Your task to perform on an android device: set default search engine in the chrome app Image 0: 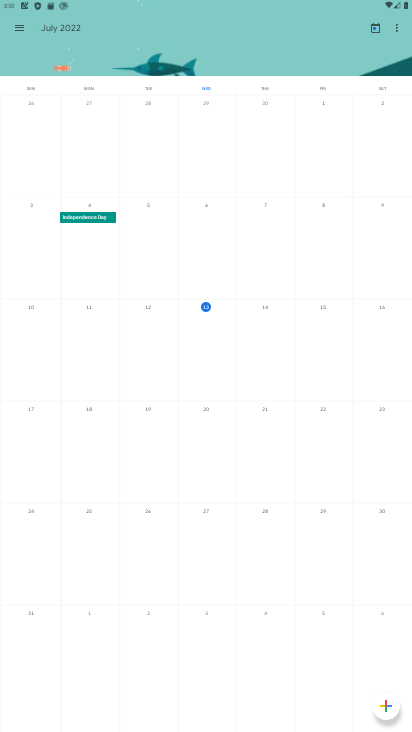
Step 0: press home button
Your task to perform on an android device: set default search engine in the chrome app Image 1: 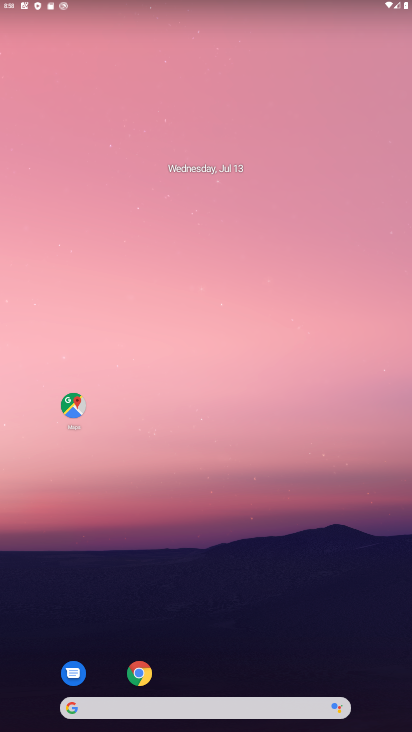
Step 1: click (129, 669)
Your task to perform on an android device: set default search engine in the chrome app Image 2: 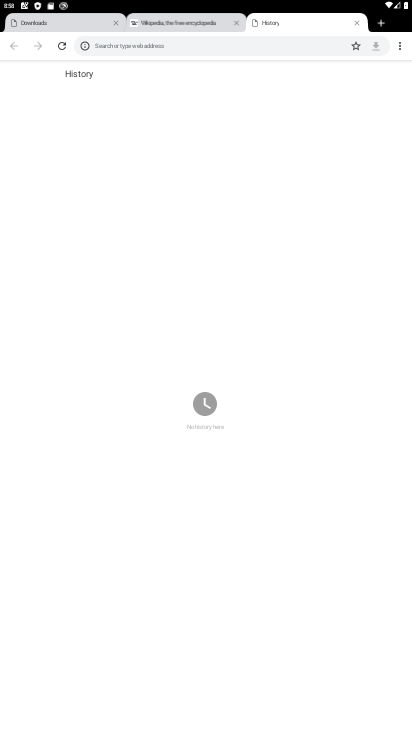
Step 2: click (394, 42)
Your task to perform on an android device: set default search engine in the chrome app Image 3: 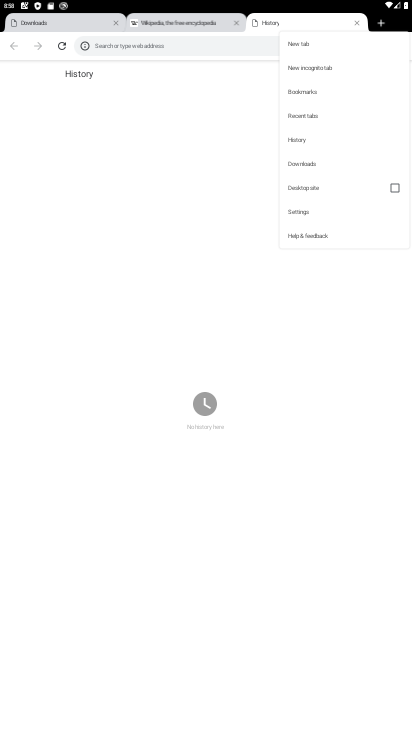
Step 3: click (298, 214)
Your task to perform on an android device: set default search engine in the chrome app Image 4: 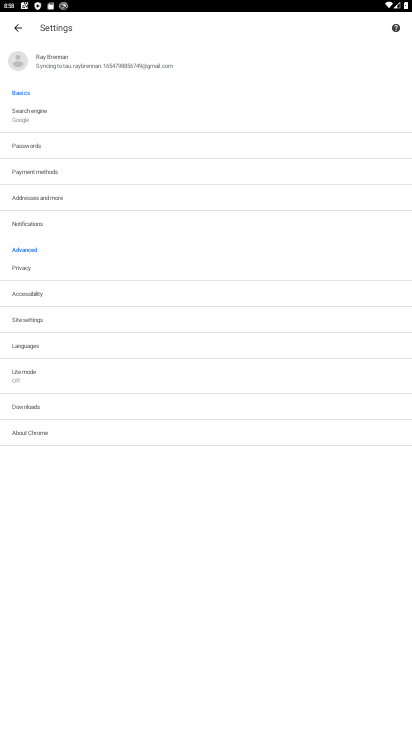
Step 4: click (61, 124)
Your task to perform on an android device: set default search engine in the chrome app Image 5: 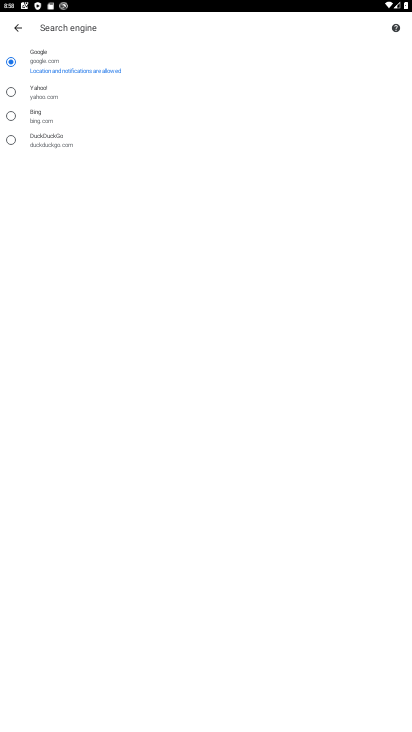
Step 5: click (71, 140)
Your task to perform on an android device: set default search engine in the chrome app Image 6: 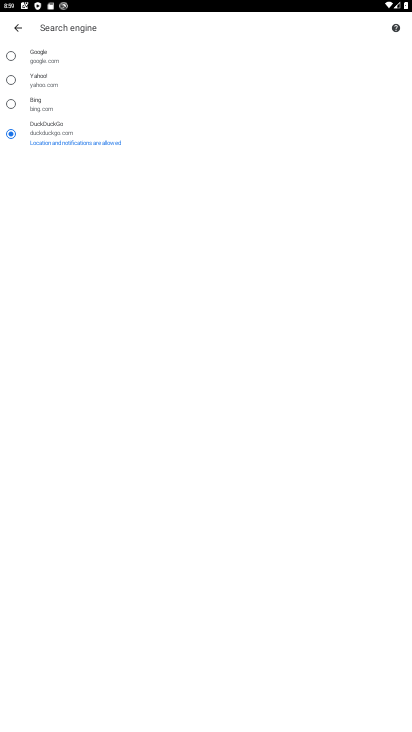
Step 6: task complete